Your task to perform on an android device: check the backup settings in the google photos Image 0: 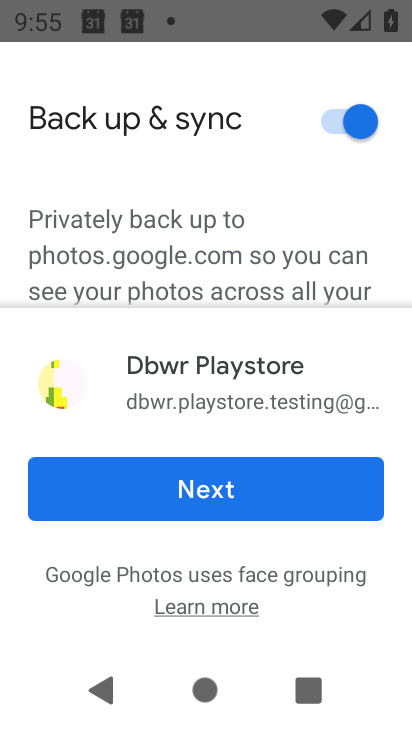
Step 0: press home button
Your task to perform on an android device: check the backup settings in the google photos Image 1: 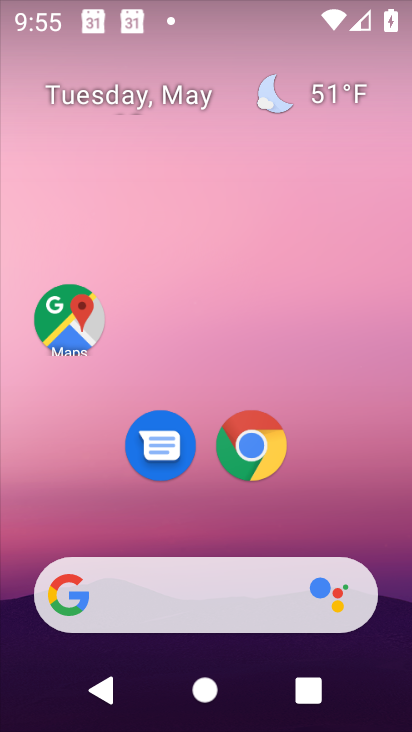
Step 1: drag from (196, 584) to (131, 43)
Your task to perform on an android device: check the backup settings in the google photos Image 2: 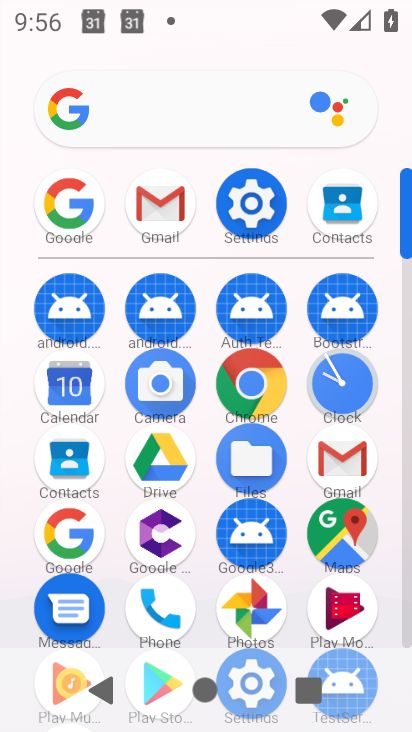
Step 2: click (263, 613)
Your task to perform on an android device: check the backup settings in the google photos Image 3: 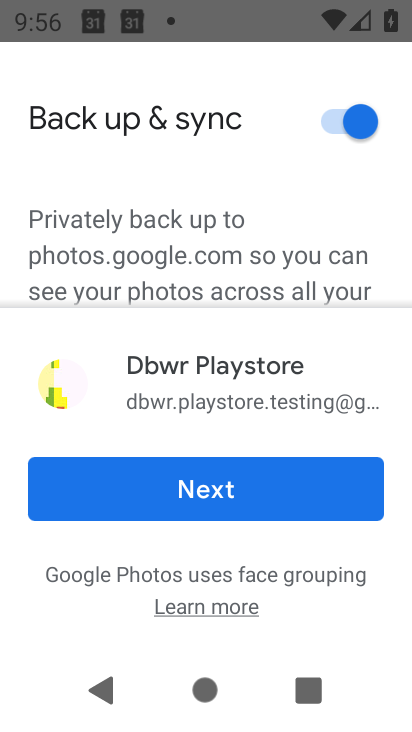
Step 3: click (300, 511)
Your task to perform on an android device: check the backup settings in the google photos Image 4: 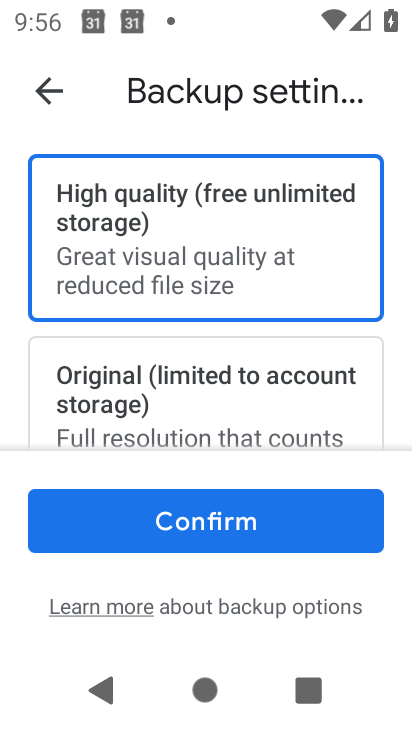
Step 4: click (300, 511)
Your task to perform on an android device: check the backup settings in the google photos Image 5: 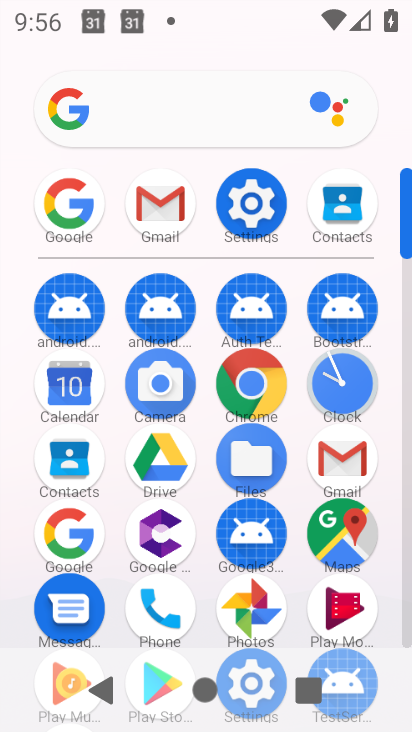
Step 5: click (263, 595)
Your task to perform on an android device: check the backup settings in the google photos Image 6: 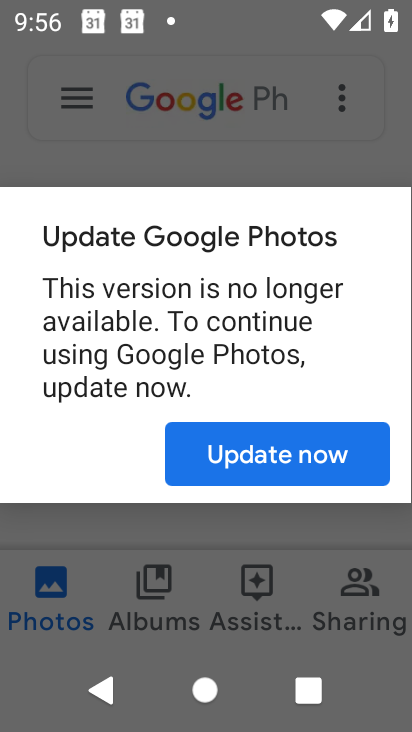
Step 6: click (233, 452)
Your task to perform on an android device: check the backup settings in the google photos Image 7: 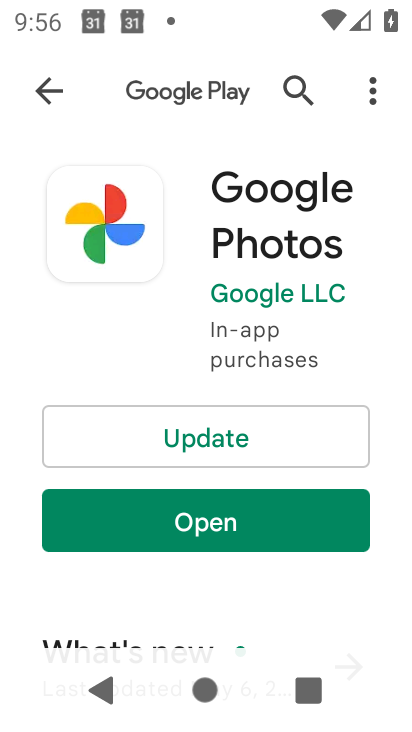
Step 7: click (233, 452)
Your task to perform on an android device: check the backup settings in the google photos Image 8: 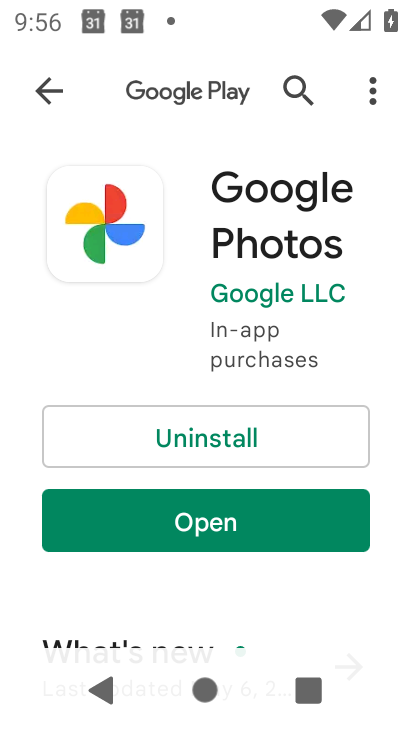
Step 8: click (187, 530)
Your task to perform on an android device: check the backup settings in the google photos Image 9: 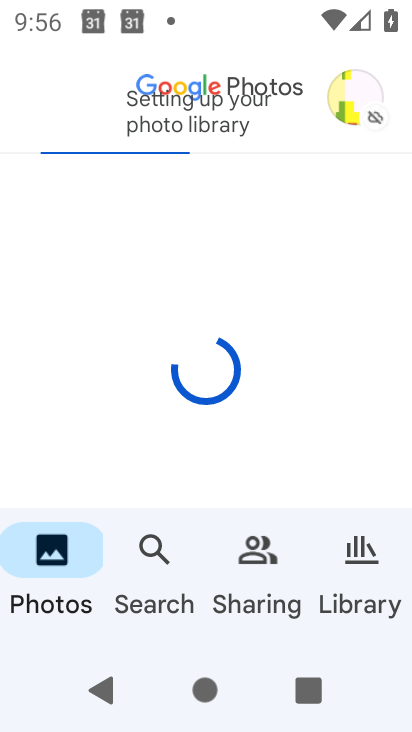
Step 9: click (355, 107)
Your task to perform on an android device: check the backup settings in the google photos Image 10: 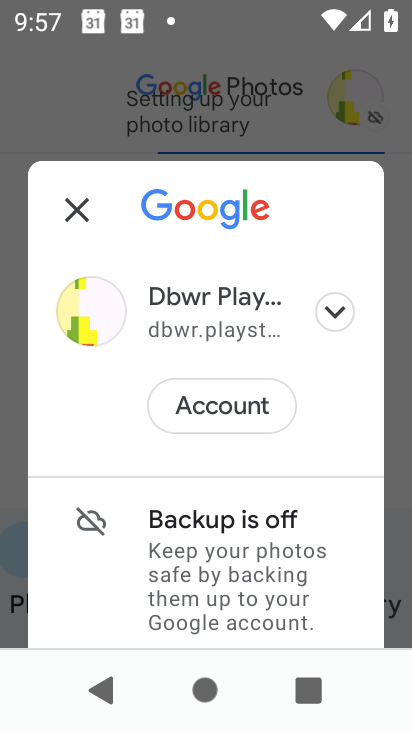
Step 10: drag from (221, 558) to (191, 5)
Your task to perform on an android device: check the backup settings in the google photos Image 11: 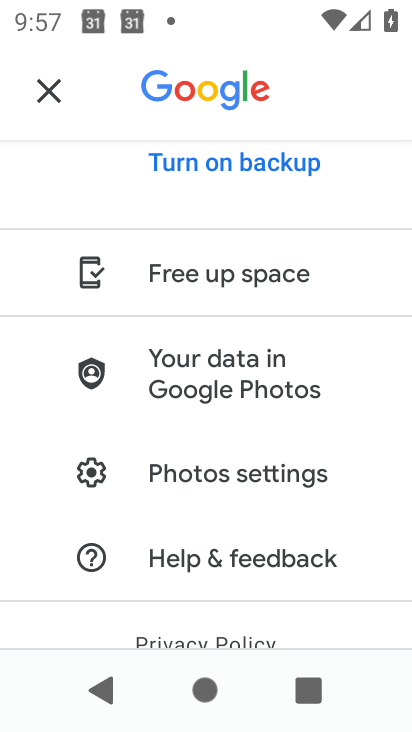
Step 11: click (218, 487)
Your task to perform on an android device: check the backup settings in the google photos Image 12: 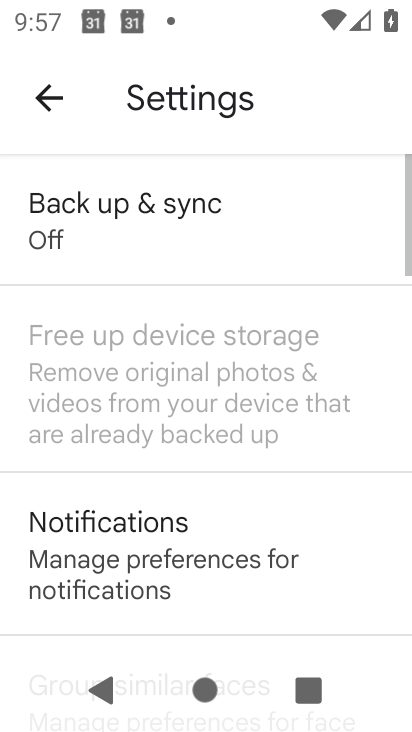
Step 12: click (120, 229)
Your task to perform on an android device: check the backup settings in the google photos Image 13: 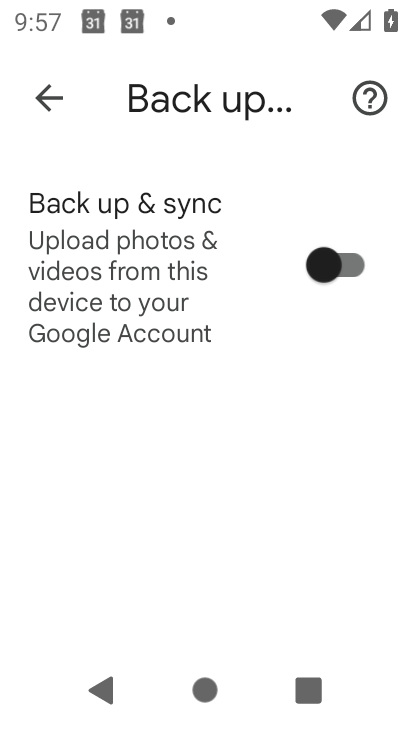
Step 13: click (336, 266)
Your task to perform on an android device: check the backup settings in the google photos Image 14: 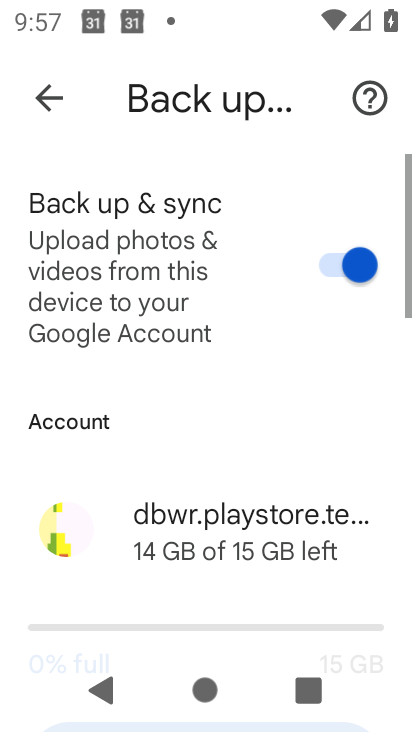
Step 14: task complete